Your task to perform on an android device: uninstall "Google Calendar" Image 0: 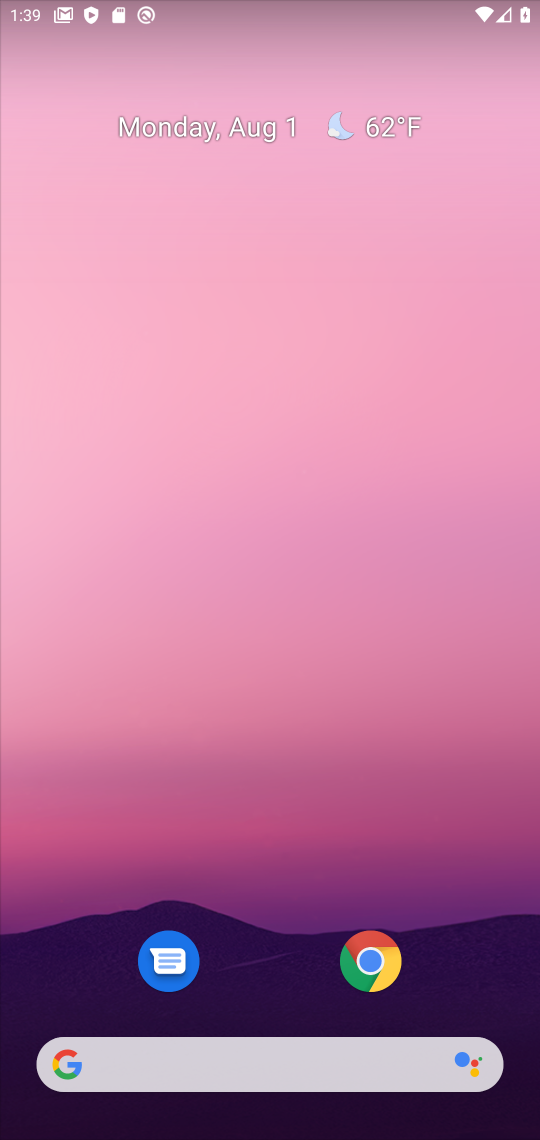
Step 0: drag from (279, 960) to (417, 144)
Your task to perform on an android device: uninstall "Google Calendar" Image 1: 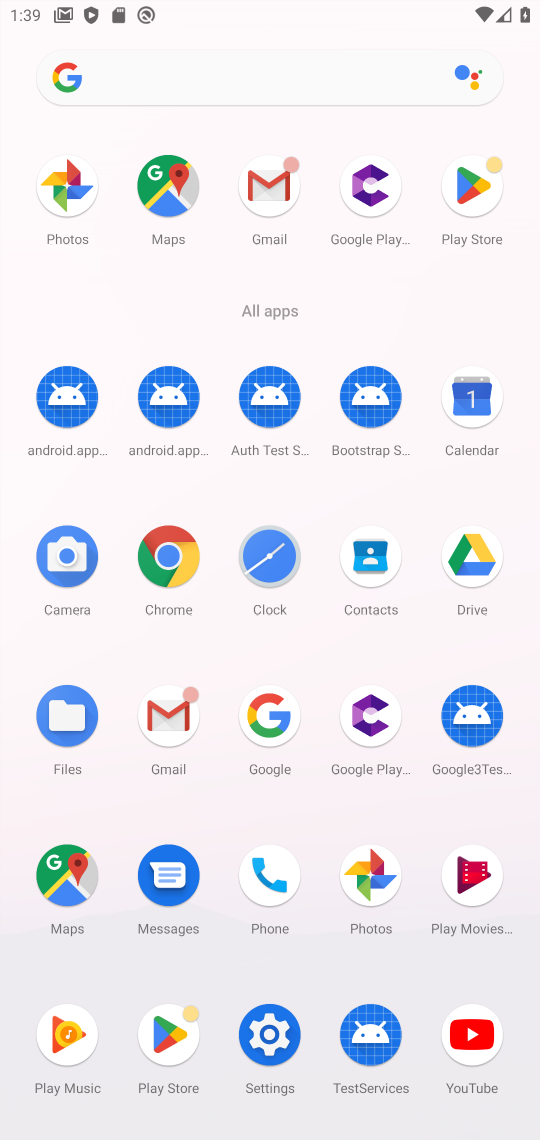
Step 1: click (480, 387)
Your task to perform on an android device: uninstall "Google Calendar" Image 2: 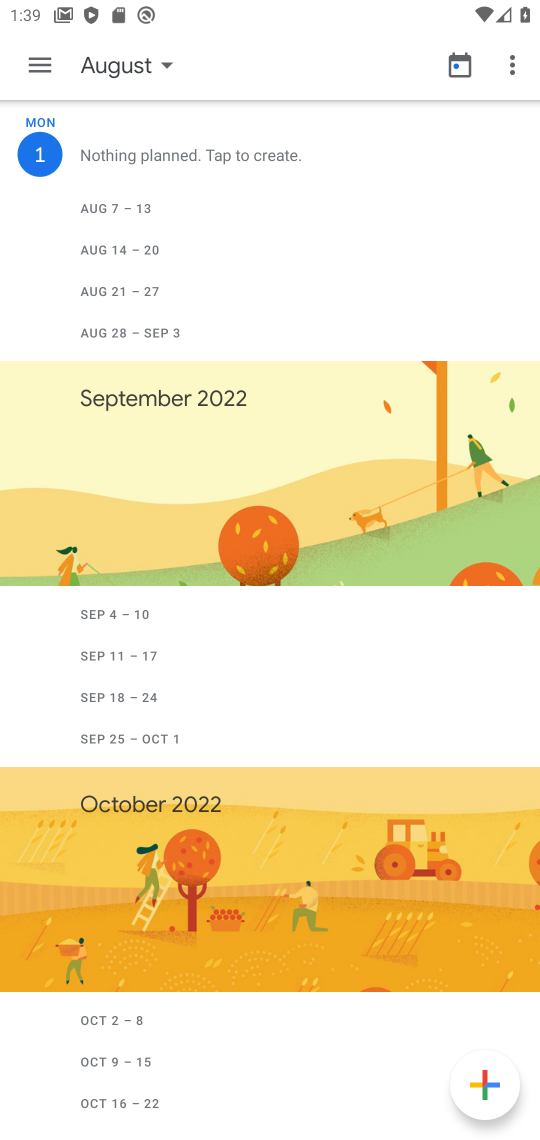
Step 2: click (245, 68)
Your task to perform on an android device: uninstall "Google Calendar" Image 3: 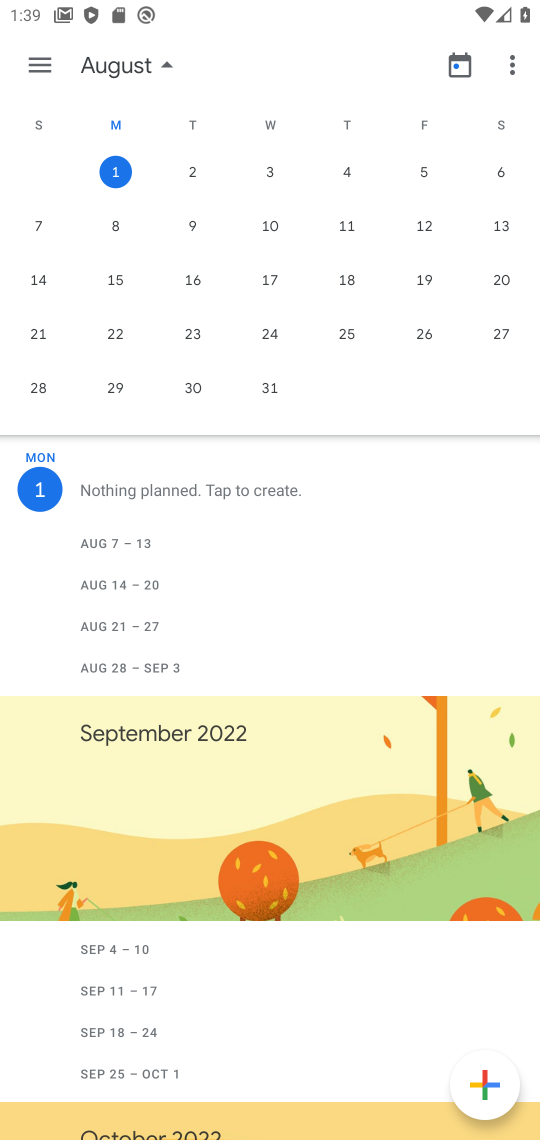
Step 3: task complete